Your task to perform on an android device: allow notifications from all sites in the chrome app Image 0: 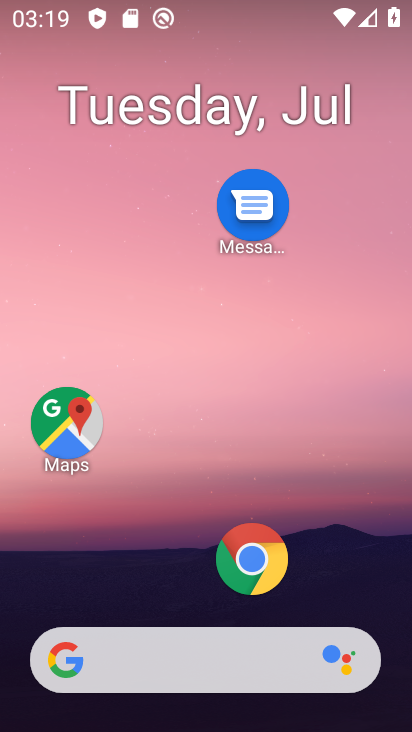
Step 0: drag from (136, 479) to (136, 126)
Your task to perform on an android device: allow notifications from all sites in the chrome app Image 1: 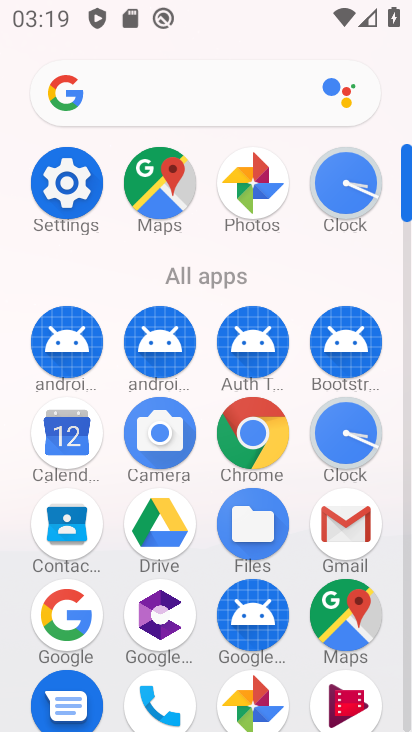
Step 1: click (243, 430)
Your task to perform on an android device: allow notifications from all sites in the chrome app Image 2: 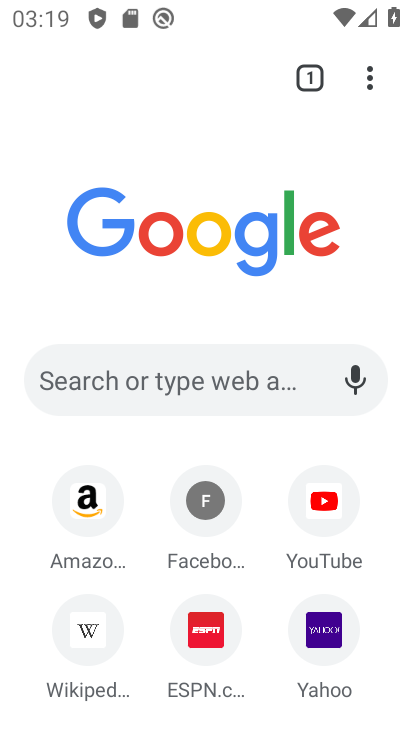
Step 2: drag from (370, 79) to (165, 627)
Your task to perform on an android device: allow notifications from all sites in the chrome app Image 3: 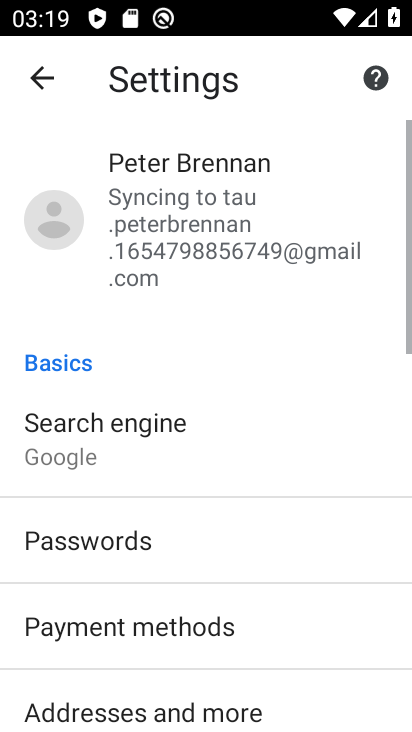
Step 3: drag from (174, 636) to (304, 86)
Your task to perform on an android device: allow notifications from all sites in the chrome app Image 4: 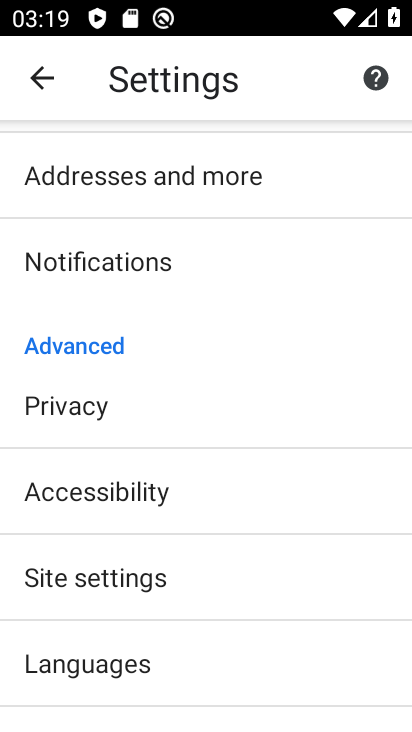
Step 4: click (68, 262)
Your task to perform on an android device: allow notifications from all sites in the chrome app Image 5: 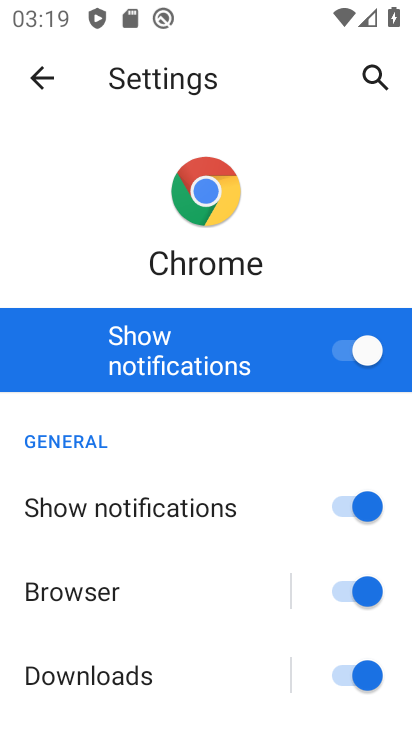
Step 5: task complete